Your task to perform on an android device: toggle location history Image 0: 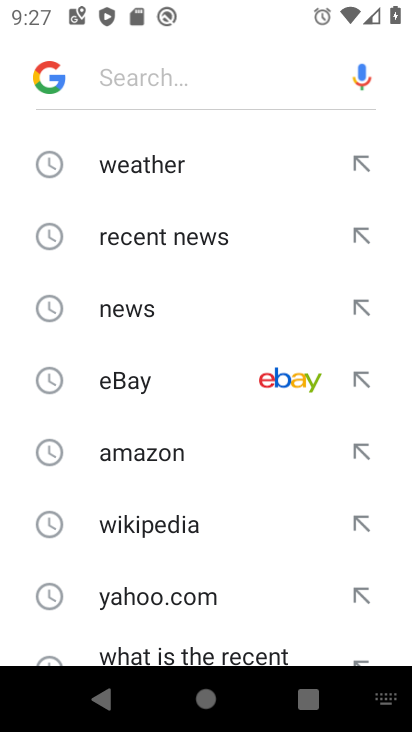
Step 0: press home button
Your task to perform on an android device: toggle location history Image 1: 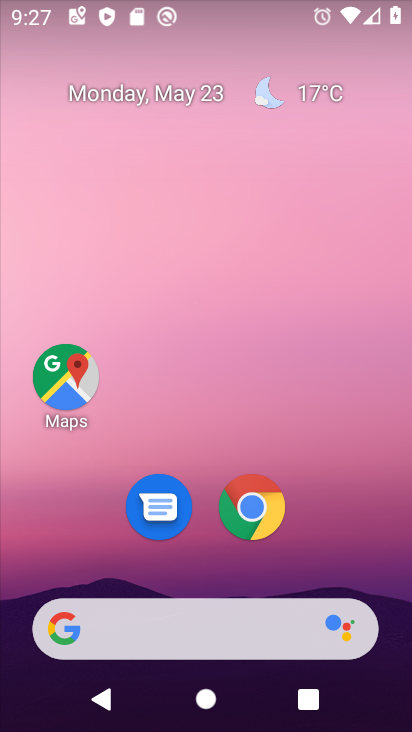
Step 1: click (49, 375)
Your task to perform on an android device: toggle location history Image 2: 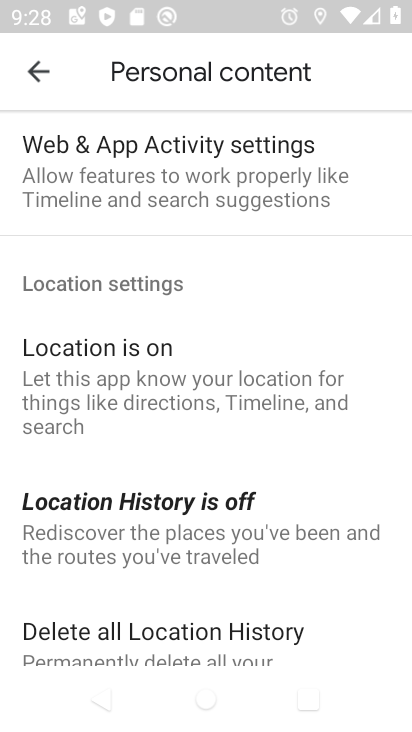
Step 2: click (161, 511)
Your task to perform on an android device: toggle location history Image 3: 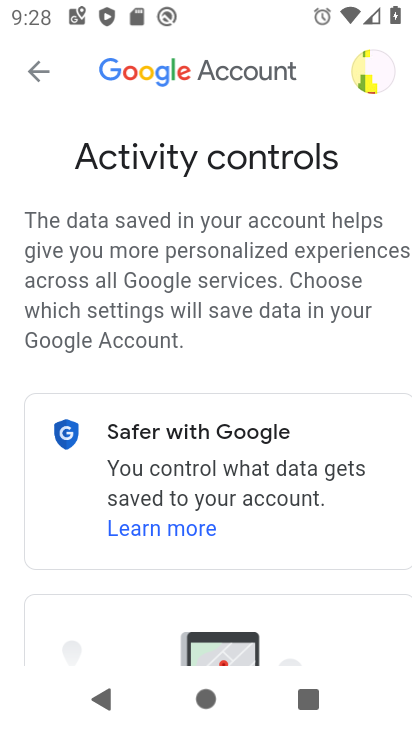
Step 3: drag from (244, 512) to (246, 23)
Your task to perform on an android device: toggle location history Image 4: 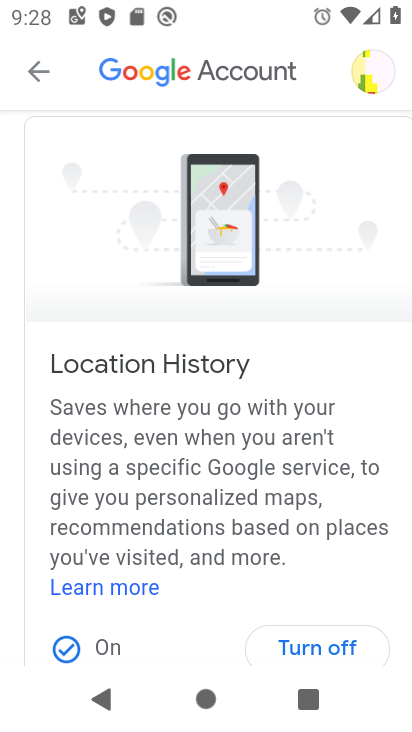
Step 4: drag from (212, 488) to (216, 127)
Your task to perform on an android device: toggle location history Image 5: 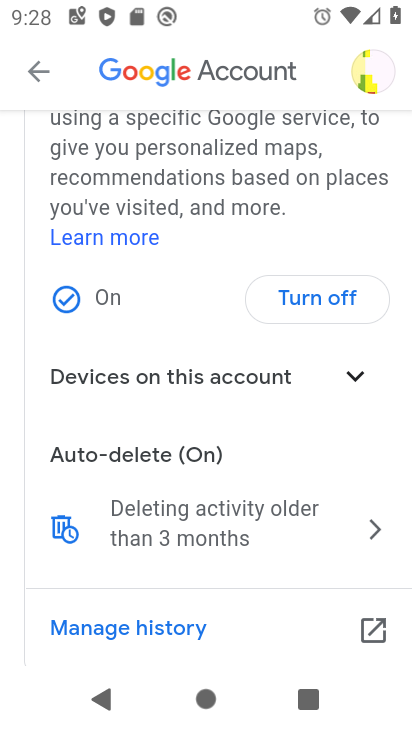
Step 5: click (314, 295)
Your task to perform on an android device: toggle location history Image 6: 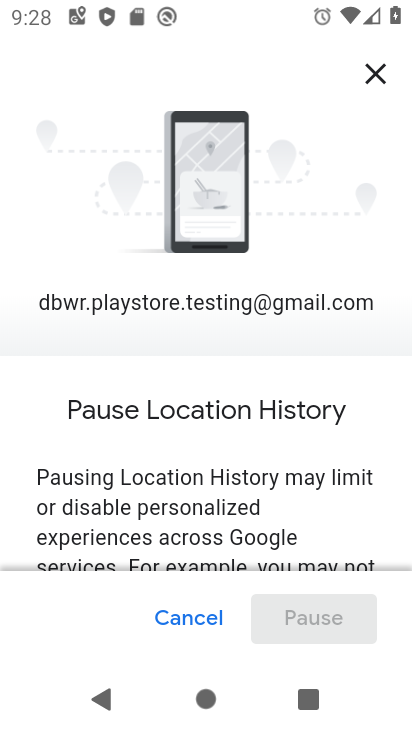
Step 6: drag from (165, 518) to (212, 59)
Your task to perform on an android device: toggle location history Image 7: 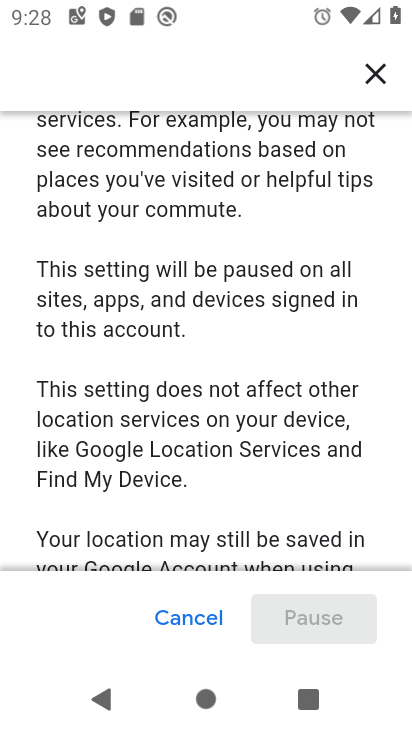
Step 7: drag from (189, 461) to (214, 95)
Your task to perform on an android device: toggle location history Image 8: 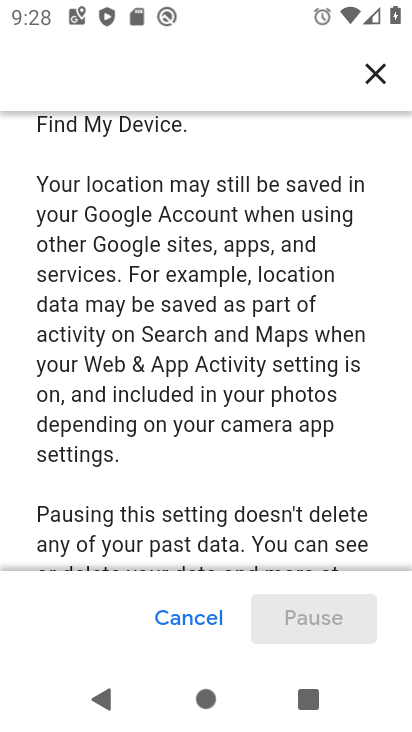
Step 8: drag from (160, 450) to (187, 130)
Your task to perform on an android device: toggle location history Image 9: 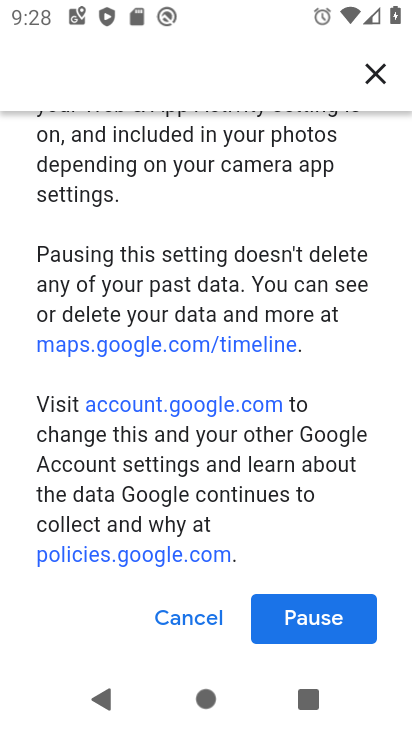
Step 9: click (302, 619)
Your task to perform on an android device: toggle location history Image 10: 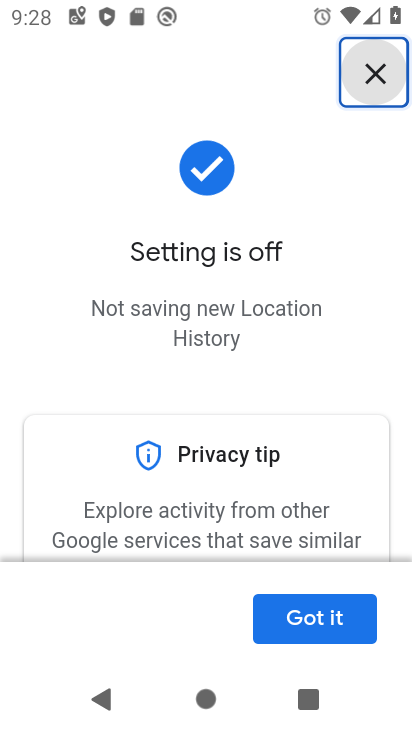
Step 10: click (302, 619)
Your task to perform on an android device: toggle location history Image 11: 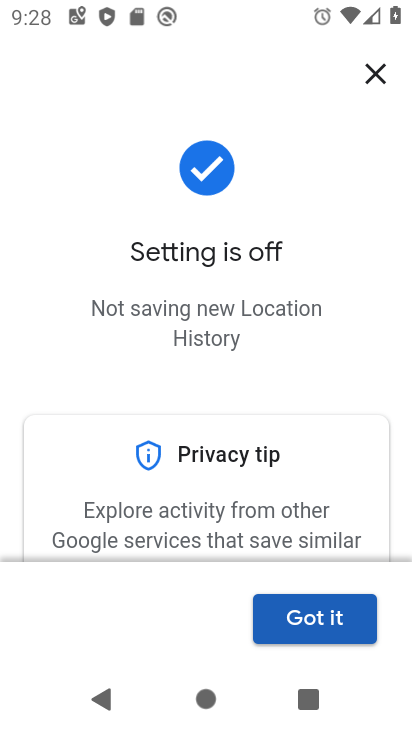
Step 11: click (354, 627)
Your task to perform on an android device: toggle location history Image 12: 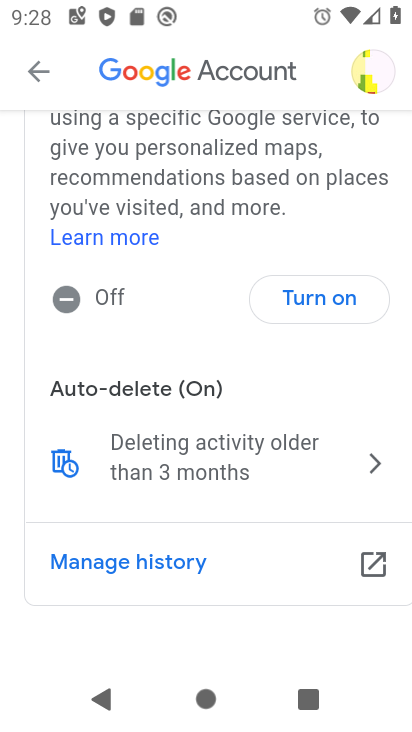
Step 12: task complete